Your task to perform on an android device: turn notification dots on Image 0: 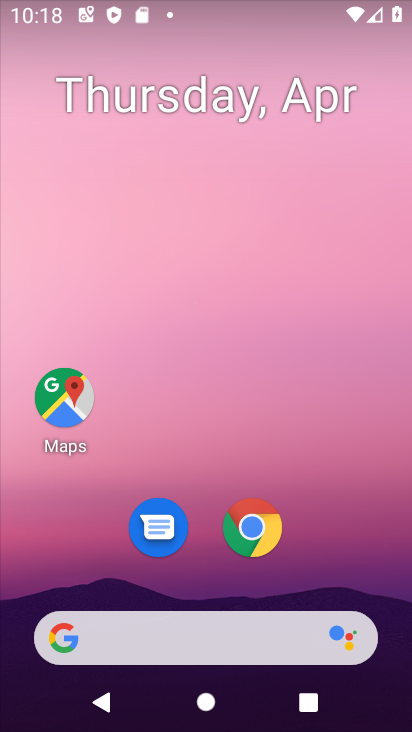
Step 0: drag from (406, 349) to (403, 45)
Your task to perform on an android device: turn notification dots on Image 1: 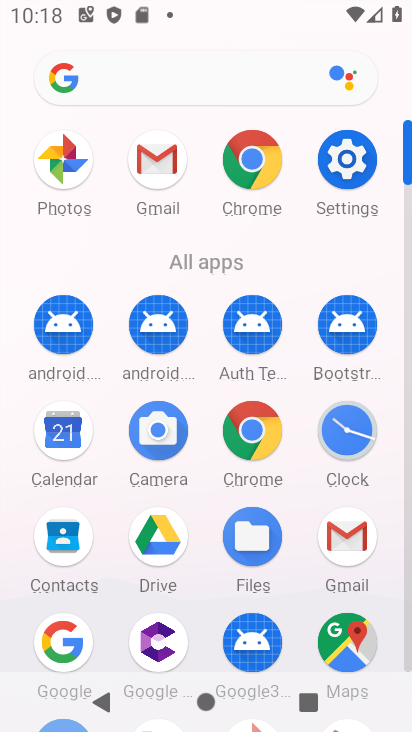
Step 1: click (349, 162)
Your task to perform on an android device: turn notification dots on Image 2: 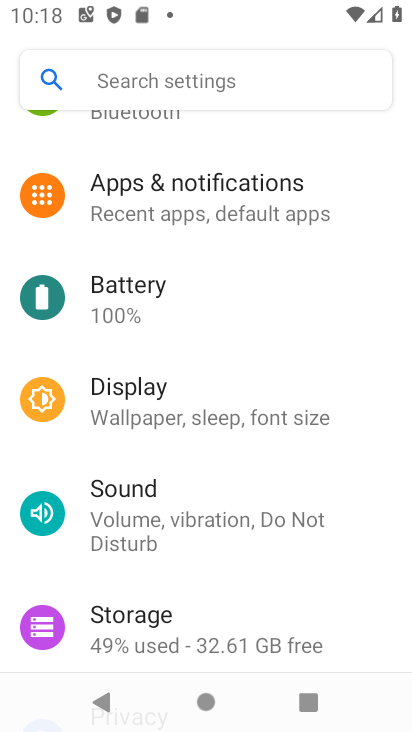
Step 2: click (246, 194)
Your task to perform on an android device: turn notification dots on Image 3: 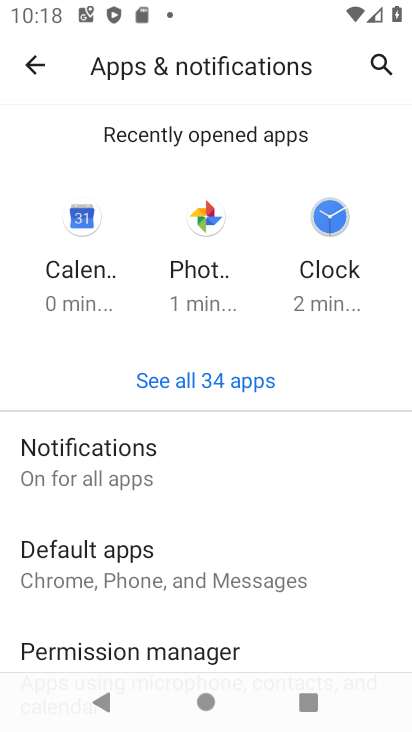
Step 3: click (138, 467)
Your task to perform on an android device: turn notification dots on Image 4: 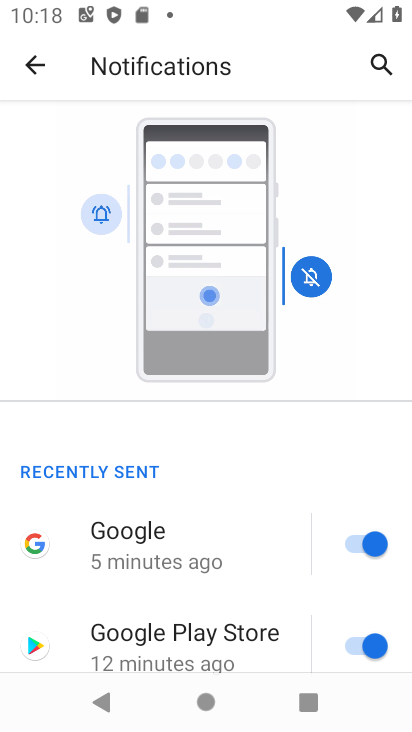
Step 4: drag from (167, 601) to (183, 217)
Your task to perform on an android device: turn notification dots on Image 5: 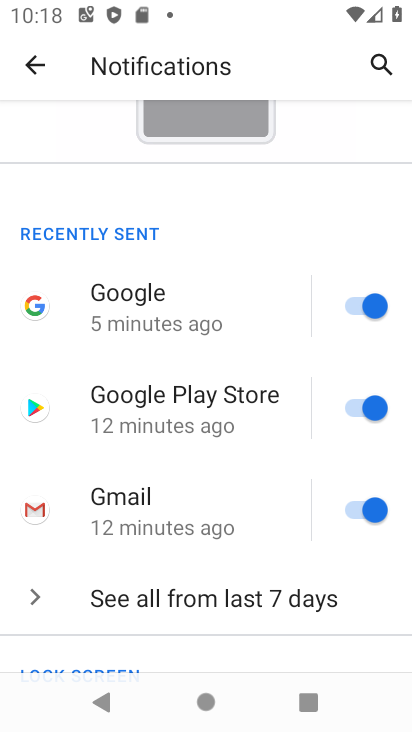
Step 5: drag from (176, 469) to (141, 197)
Your task to perform on an android device: turn notification dots on Image 6: 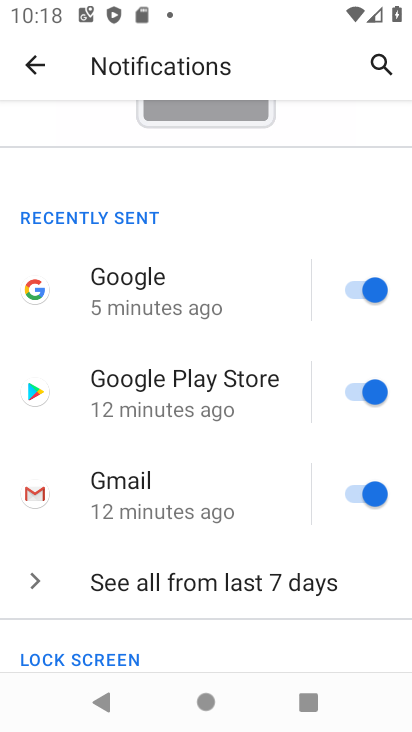
Step 6: drag from (197, 545) to (178, 197)
Your task to perform on an android device: turn notification dots on Image 7: 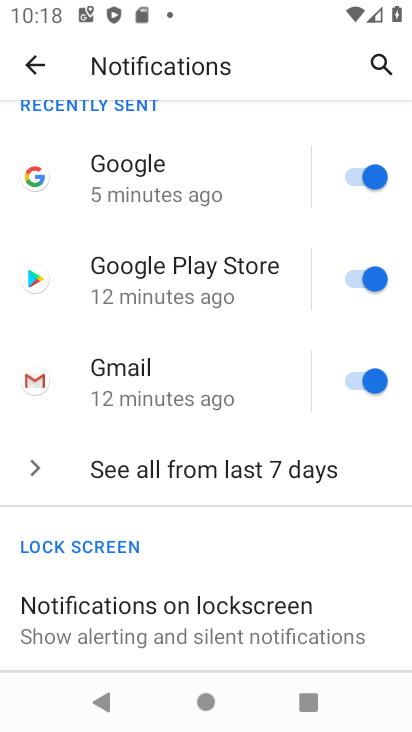
Step 7: drag from (227, 565) to (180, 225)
Your task to perform on an android device: turn notification dots on Image 8: 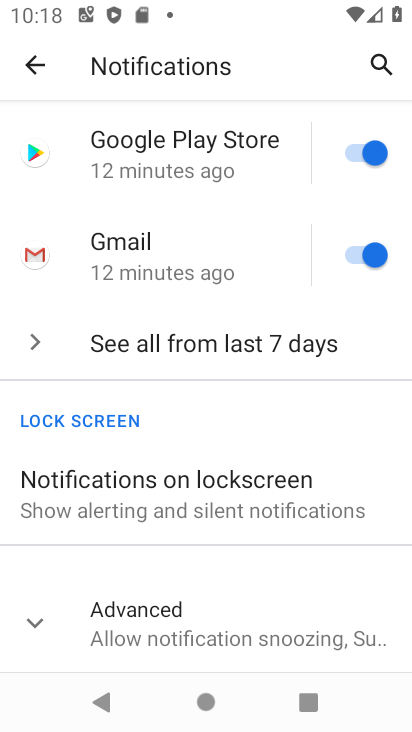
Step 8: click (226, 622)
Your task to perform on an android device: turn notification dots on Image 9: 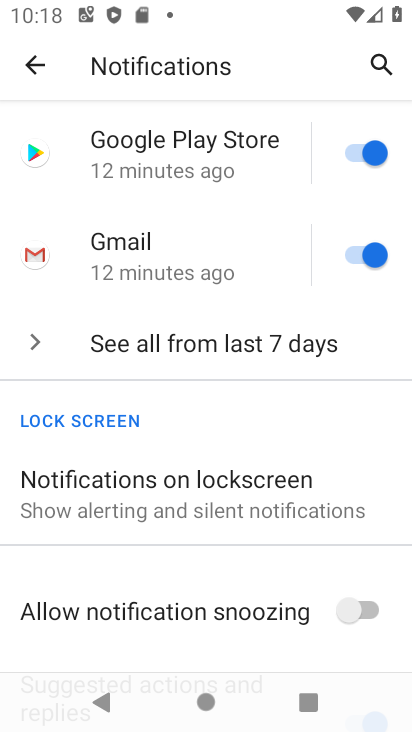
Step 9: task complete